Your task to perform on an android device: turn on airplane mode Image 0: 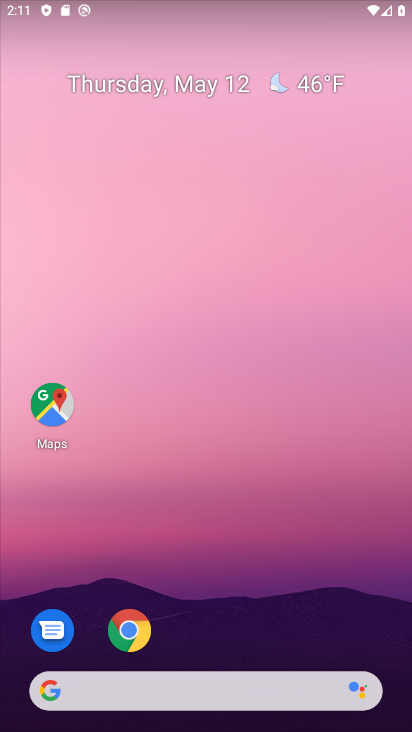
Step 0: drag from (207, 613) to (120, 0)
Your task to perform on an android device: turn on airplane mode Image 1: 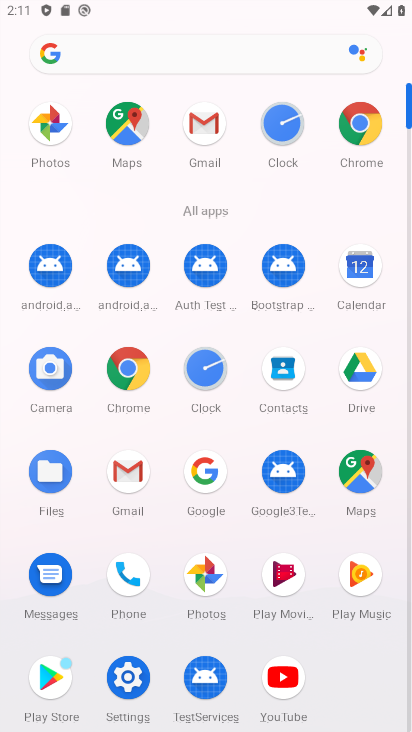
Step 1: click (123, 689)
Your task to perform on an android device: turn on airplane mode Image 2: 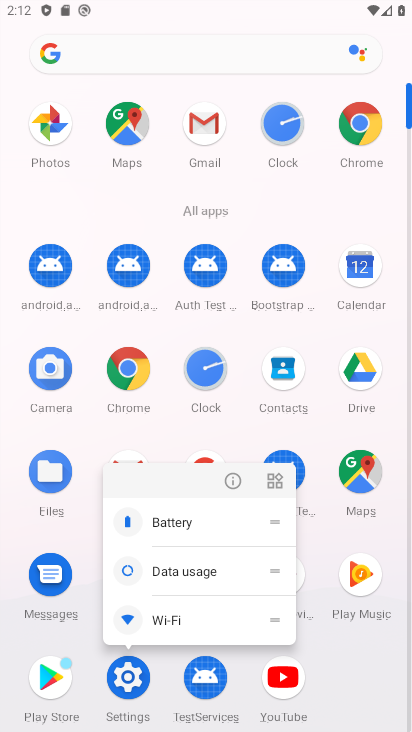
Step 2: click (132, 679)
Your task to perform on an android device: turn on airplane mode Image 3: 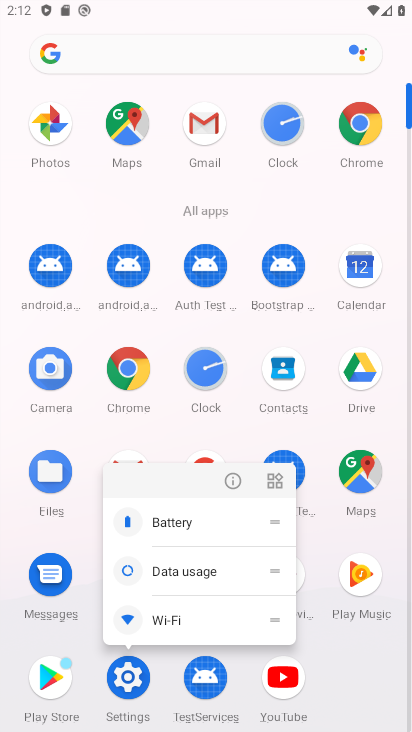
Step 3: click (126, 682)
Your task to perform on an android device: turn on airplane mode Image 4: 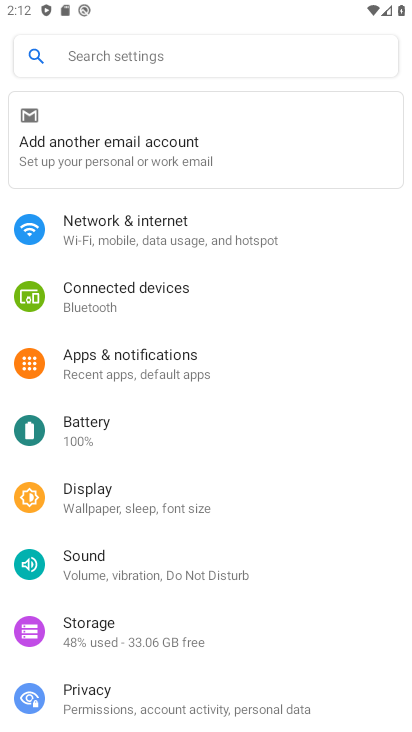
Step 4: click (143, 231)
Your task to perform on an android device: turn on airplane mode Image 5: 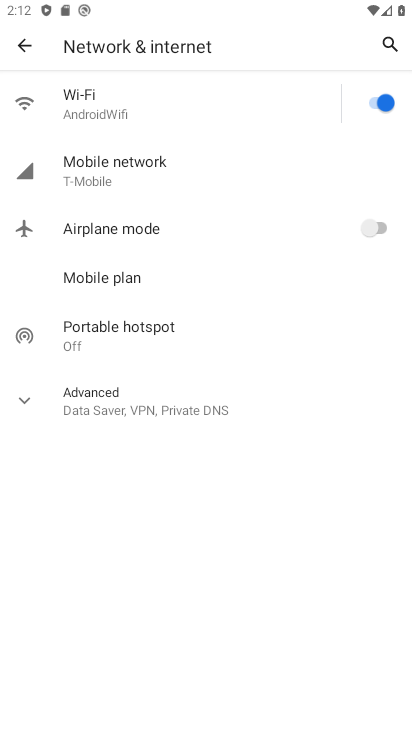
Step 5: click (381, 233)
Your task to perform on an android device: turn on airplane mode Image 6: 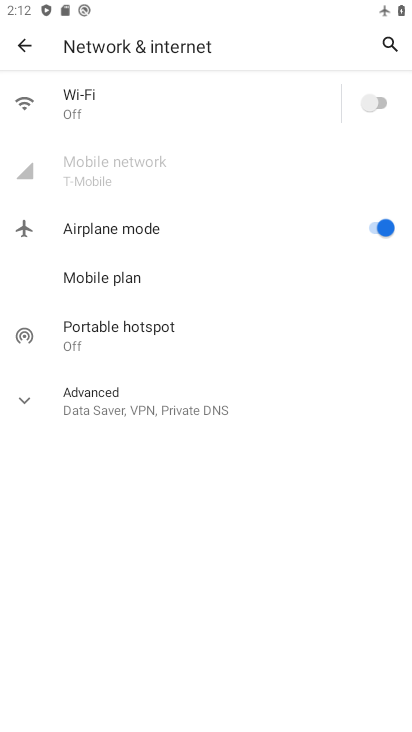
Step 6: task complete